Your task to perform on an android device: Go to privacy settings Image 0: 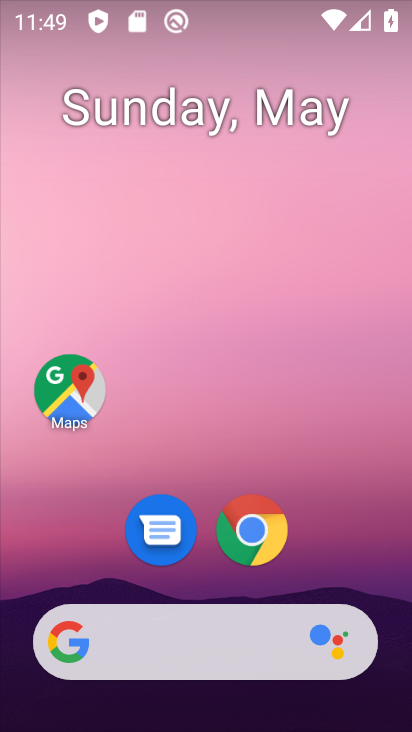
Step 0: drag from (203, 595) to (290, 76)
Your task to perform on an android device: Go to privacy settings Image 1: 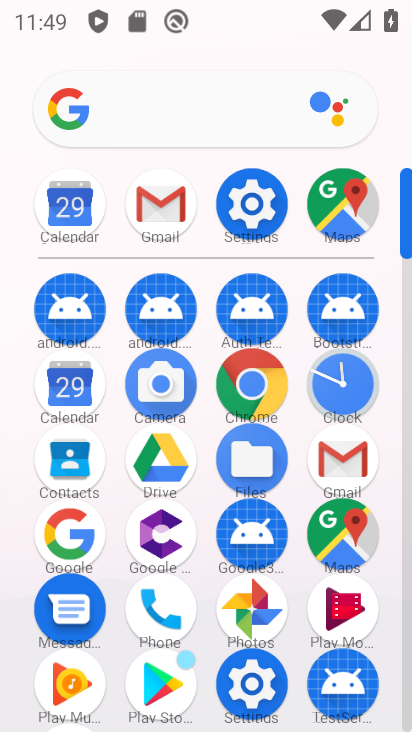
Step 1: click (244, 202)
Your task to perform on an android device: Go to privacy settings Image 2: 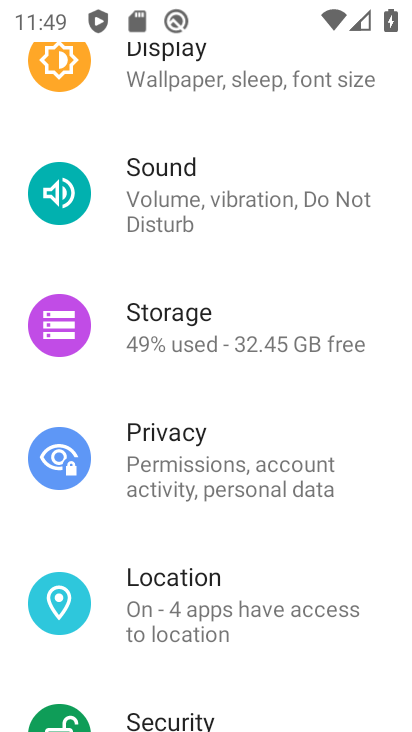
Step 2: drag from (240, 374) to (220, 728)
Your task to perform on an android device: Go to privacy settings Image 3: 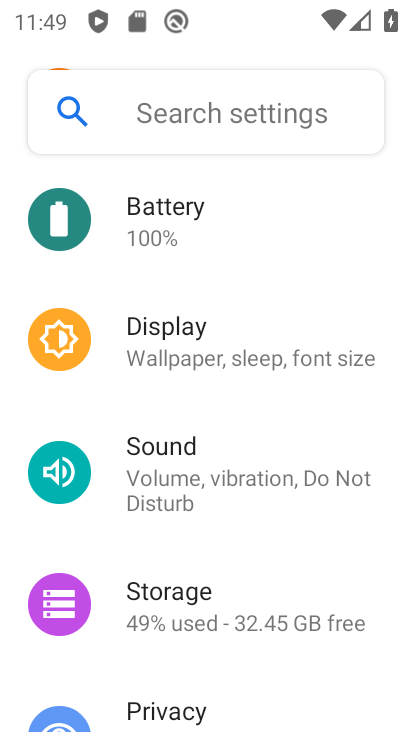
Step 3: drag from (230, 622) to (295, 237)
Your task to perform on an android device: Go to privacy settings Image 4: 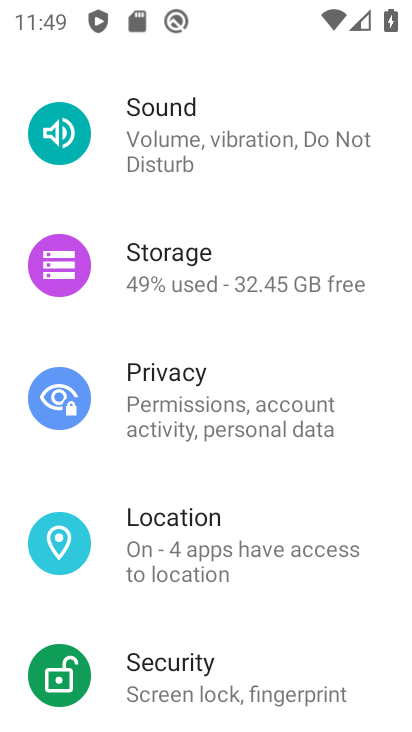
Step 4: click (210, 393)
Your task to perform on an android device: Go to privacy settings Image 5: 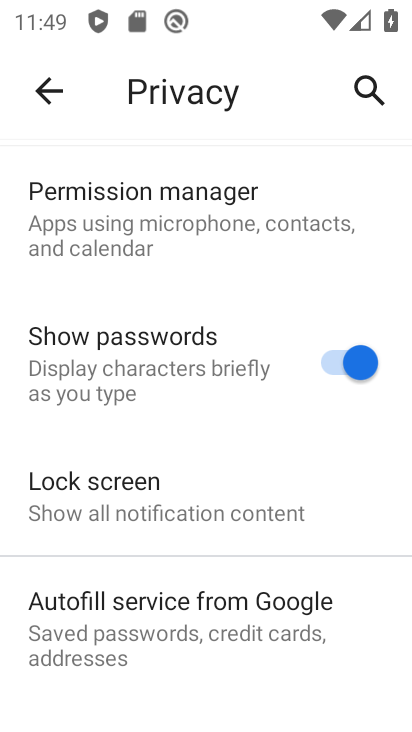
Step 5: task complete